Your task to perform on an android device: Clear the cart on bestbuy. Image 0: 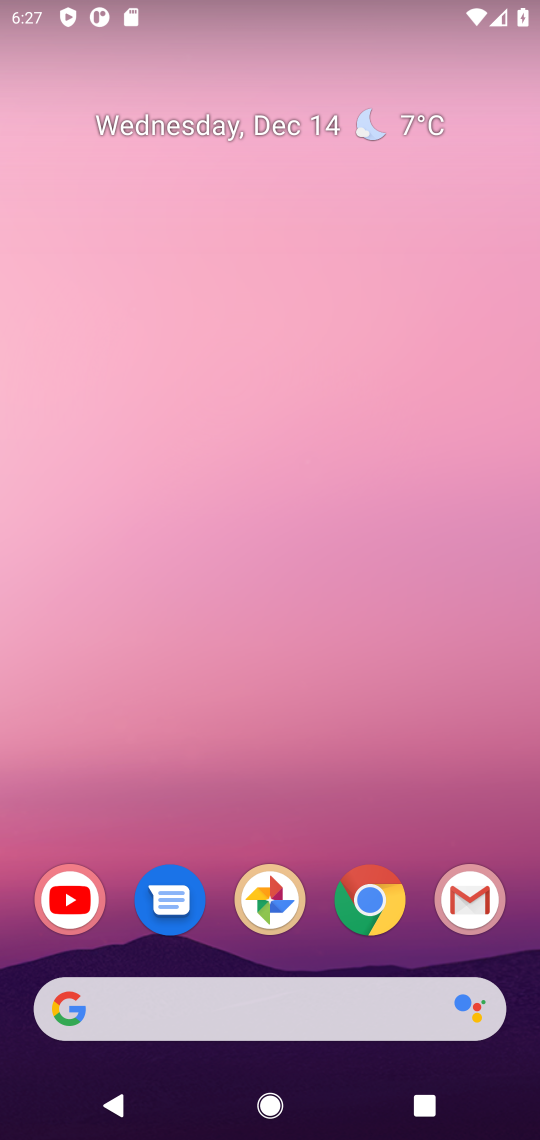
Step 0: click (294, 1001)
Your task to perform on an android device: Clear the cart on bestbuy. Image 1: 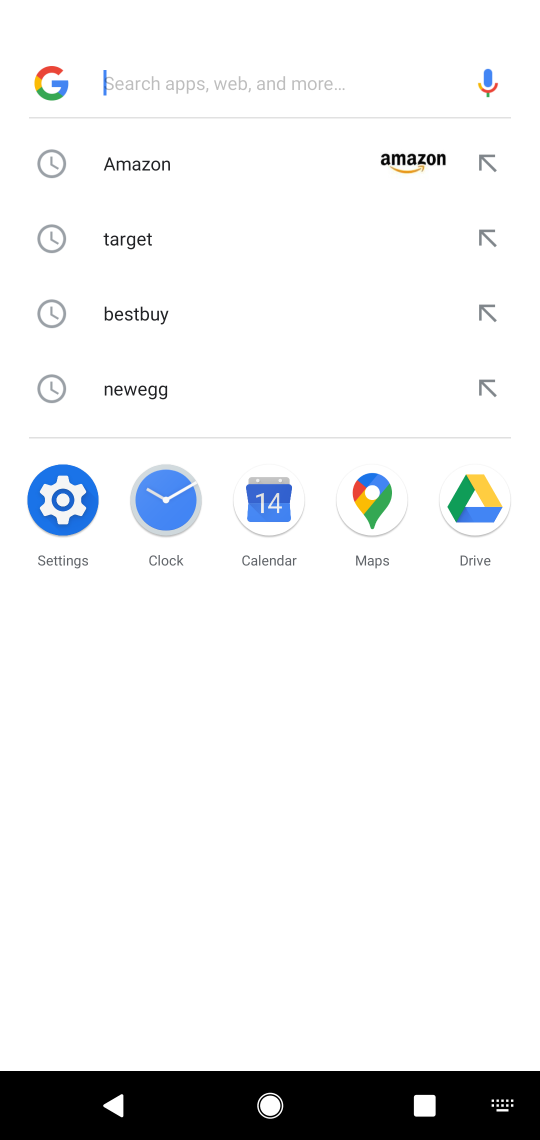
Step 1: type "bestbuy"
Your task to perform on an android device: Clear the cart on bestbuy. Image 2: 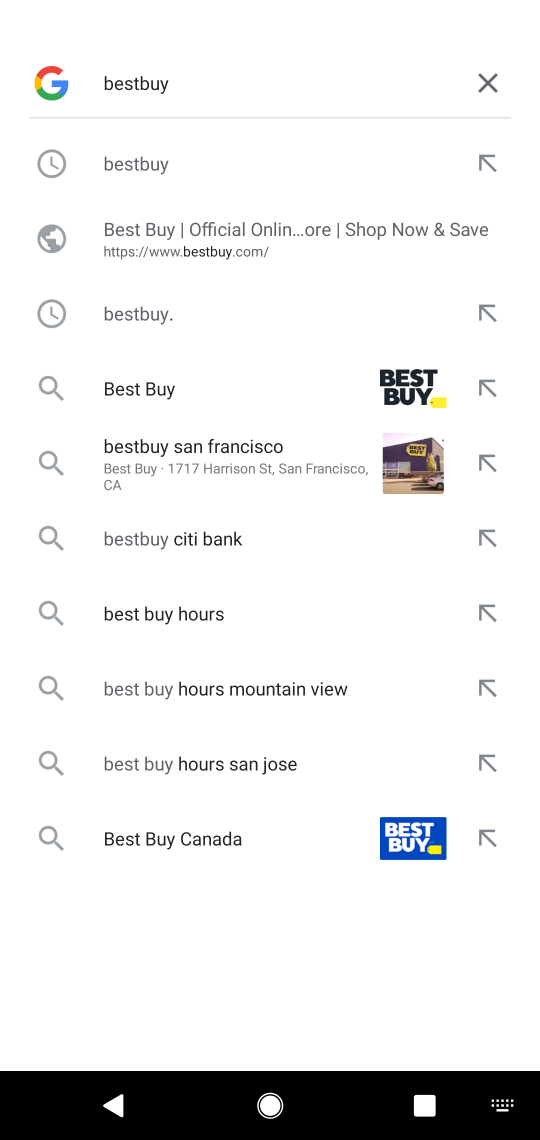
Step 2: click (149, 386)
Your task to perform on an android device: Clear the cart on bestbuy. Image 3: 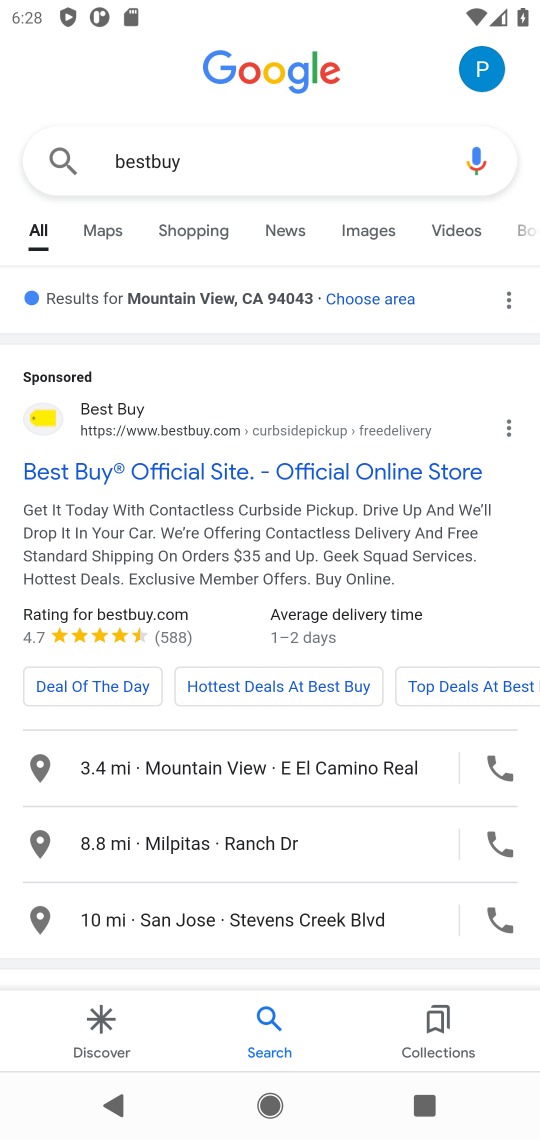
Step 3: drag from (152, 843) to (173, 641)
Your task to perform on an android device: Clear the cart on bestbuy. Image 4: 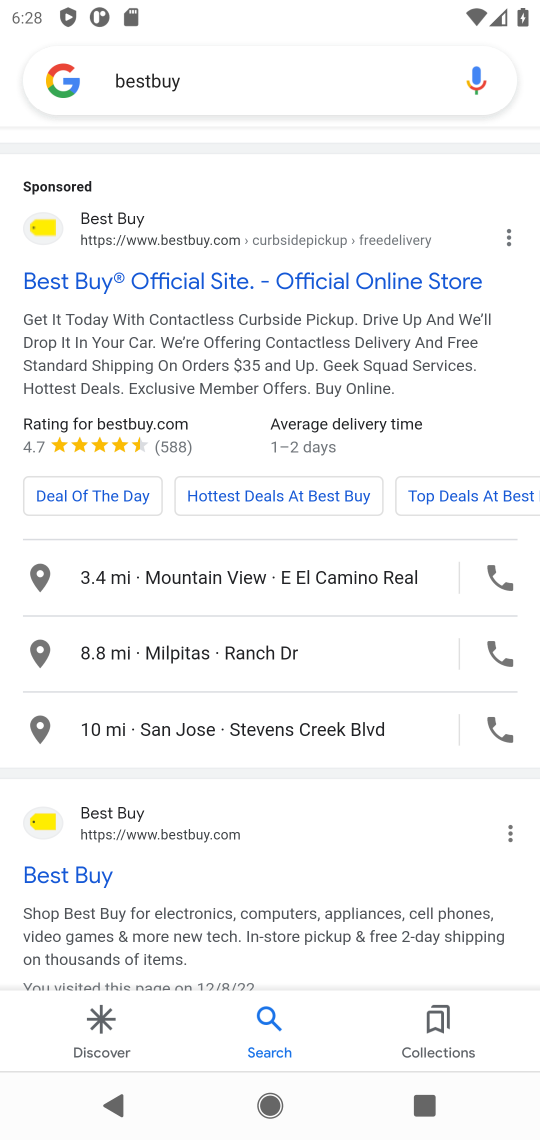
Step 4: click (66, 873)
Your task to perform on an android device: Clear the cart on bestbuy. Image 5: 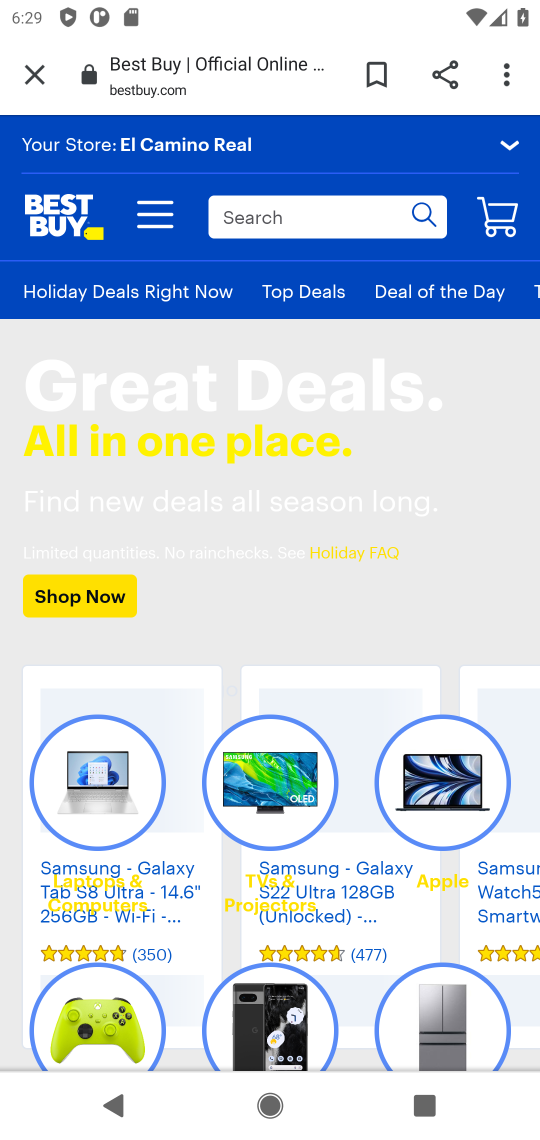
Step 5: click (505, 212)
Your task to perform on an android device: Clear the cart on bestbuy. Image 6: 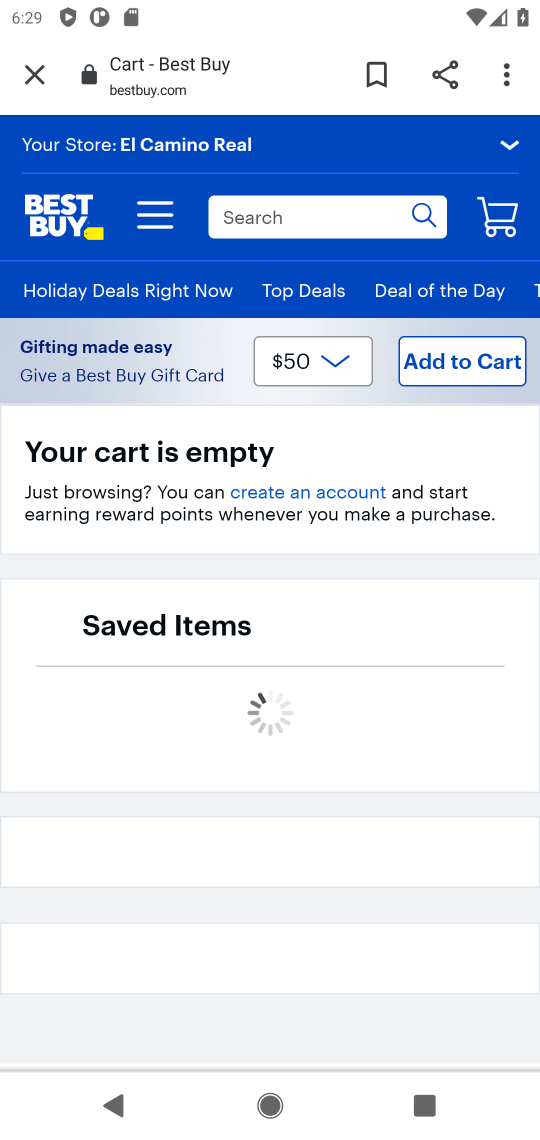
Step 6: task complete